Your task to perform on an android device: turn off priority inbox in the gmail app Image 0: 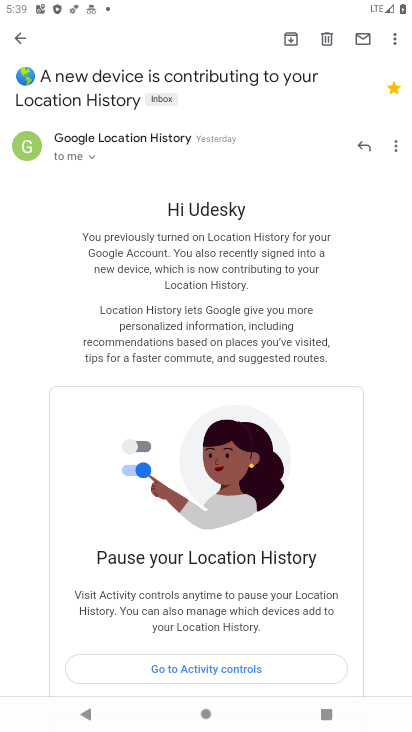
Step 0: press home button
Your task to perform on an android device: turn off priority inbox in the gmail app Image 1: 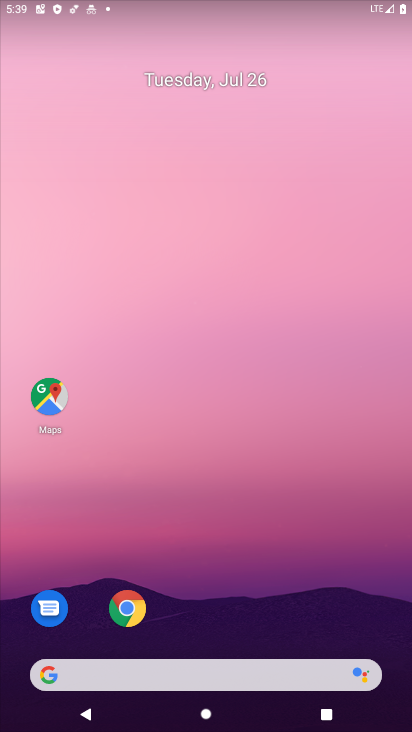
Step 1: drag from (243, 621) to (236, 34)
Your task to perform on an android device: turn off priority inbox in the gmail app Image 2: 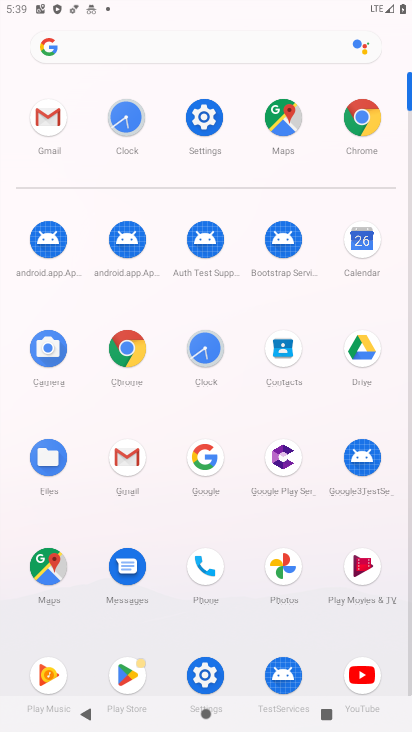
Step 2: click (46, 118)
Your task to perform on an android device: turn off priority inbox in the gmail app Image 3: 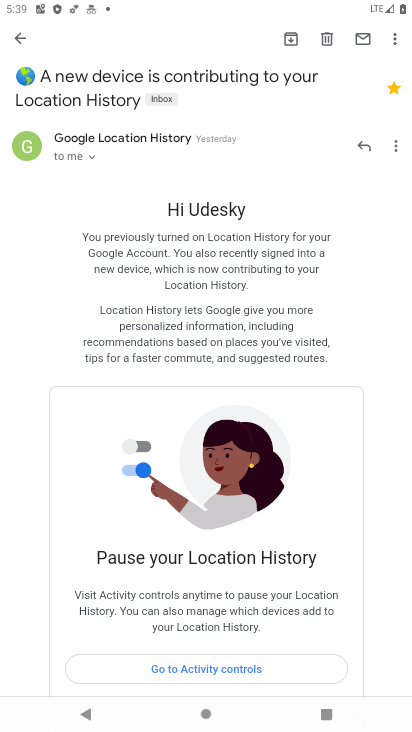
Step 3: click (20, 34)
Your task to perform on an android device: turn off priority inbox in the gmail app Image 4: 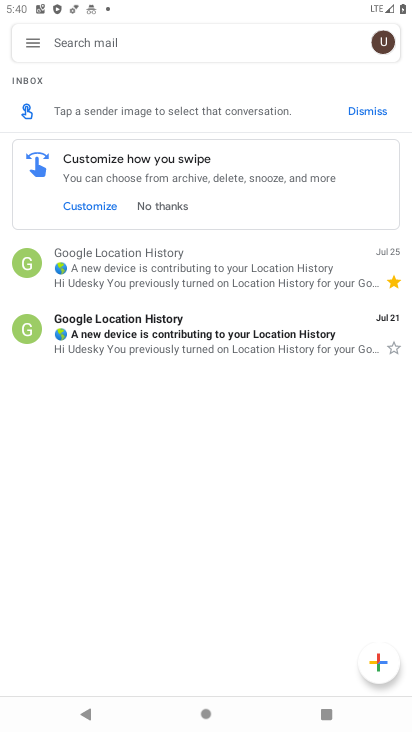
Step 4: click (32, 36)
Your task to perform on an android device: turn off priority inbox in the gmail app Image 5: 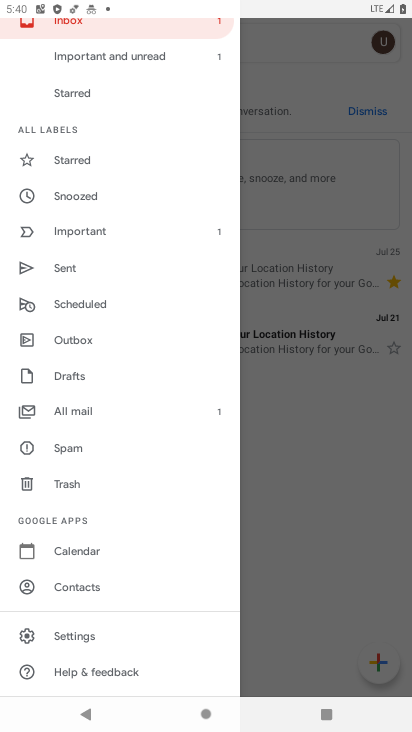
Step 5: click (89, 631)
Your task to perform on an android device: turn off priority inbox in the gmail app Image 6: 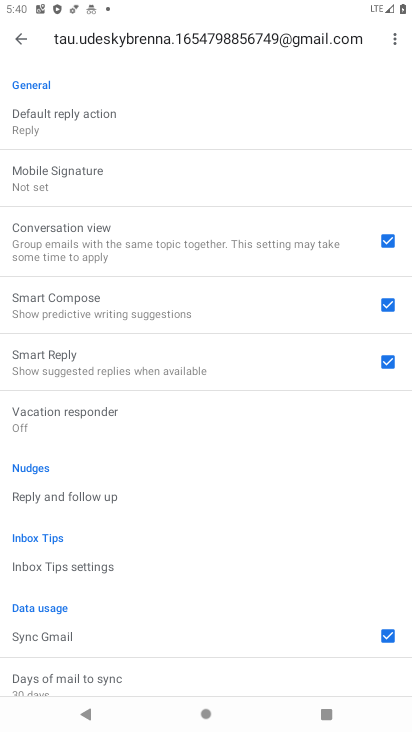
Step 6: drag from (142, 96) to (154, 727)
Your task to perform on an android device: turn off priority inbox in the gmail app Image 7: 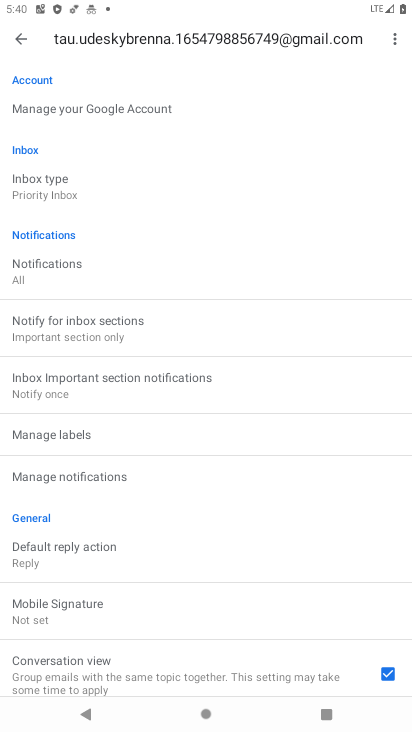
Step 7: click (35, 185)
Your task to perform on an android device: turn off priority inbox in the gmail app Image 8: 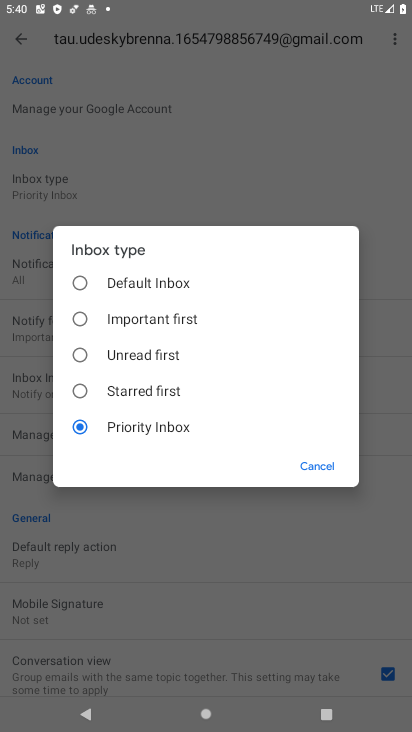
Step 8: click (82, 286)
Your task to perform on an android device: turn off priority inbox in the gmail app Image 9: 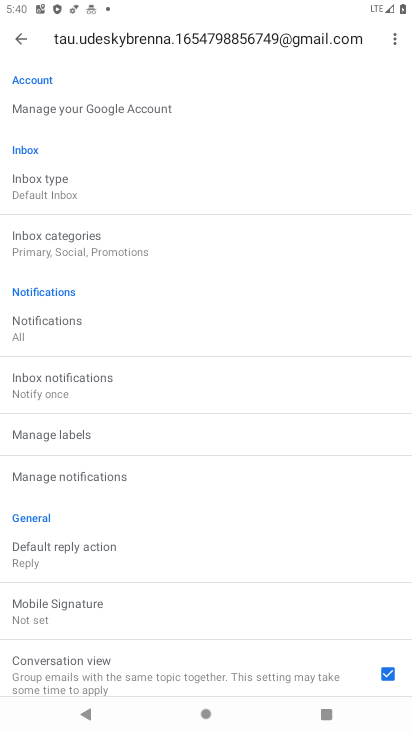
Step 9: task complete